Your task to perform on an android device: Open Youtube and go to "Your channel" Image 0: 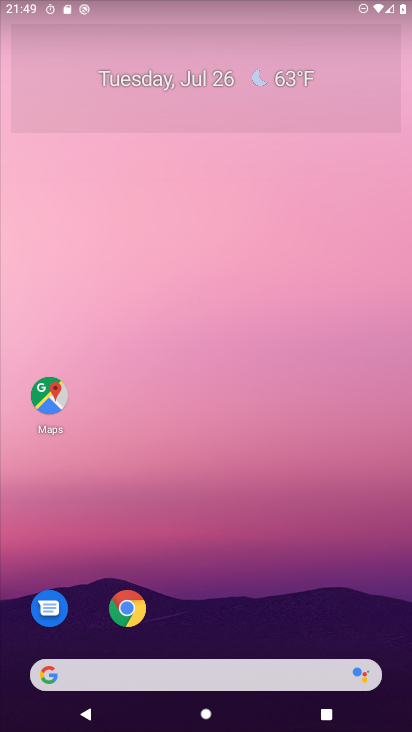
Step 0: drag from (76, 598) to (253, 172)
Your task to perform on an android device: Open Youtube and go to "Your channel" Image 1: 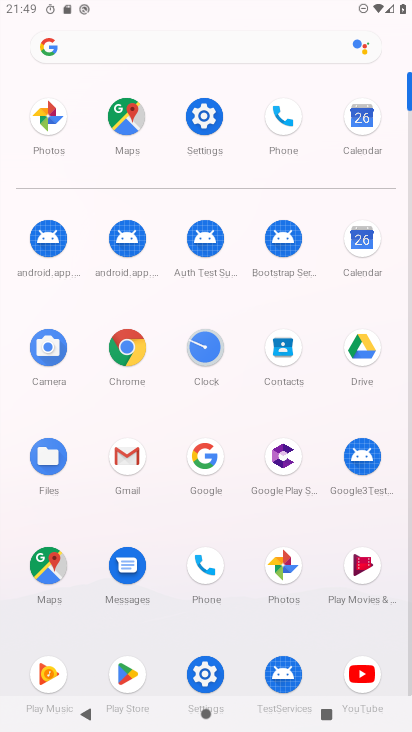
Step 1: click (352, 673)
Your task to perform on an android device: Open Youtube and go to "Your channel" Image 2: 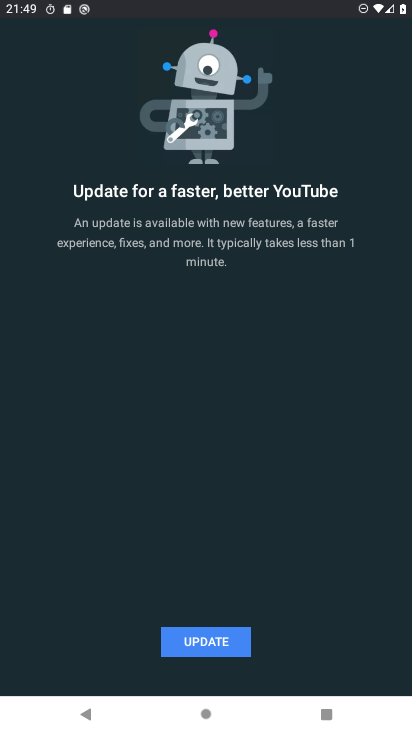
Step 2: click (194, 634)
Your task to perform on an android device: Open Youtube and go to "Your channel" Image 3: 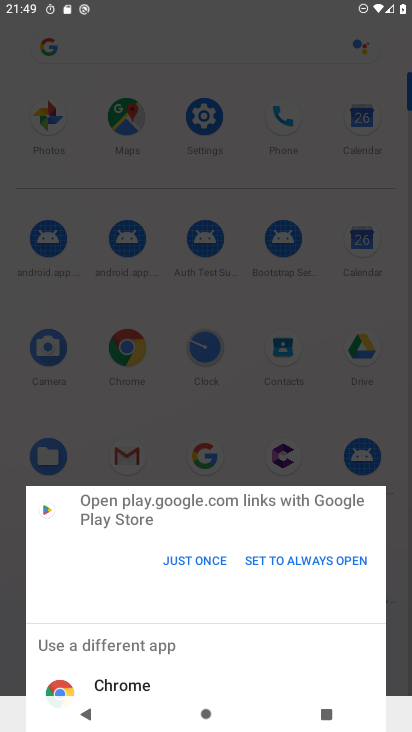
Step 3: click (195, 558)
Your task to perform on an android device: Open Youtube and go to "Your channel" Image 4: 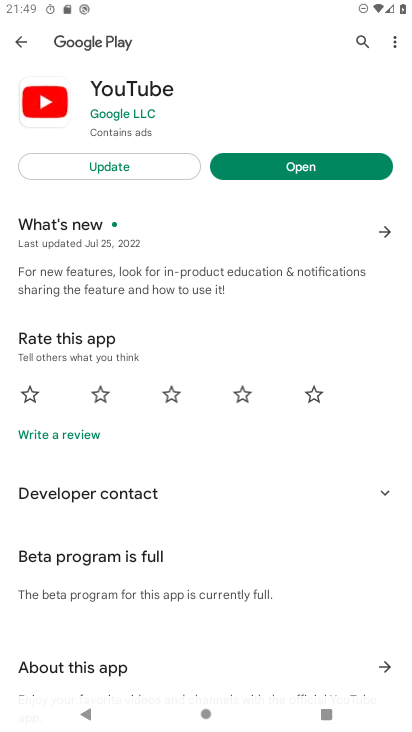
Step 4: click (256, 165)
Your task to perform on an android device: Open Youtube and go to "Your channel" Image 5: 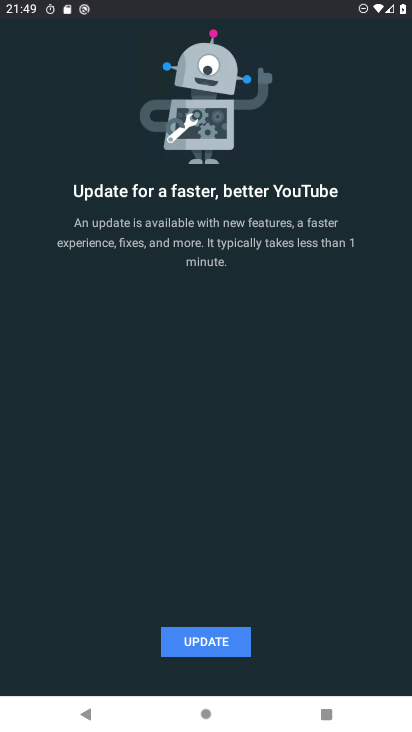
Step 5: task complete